Your task to perform on an android device: open sync settings in chrome Image 0: 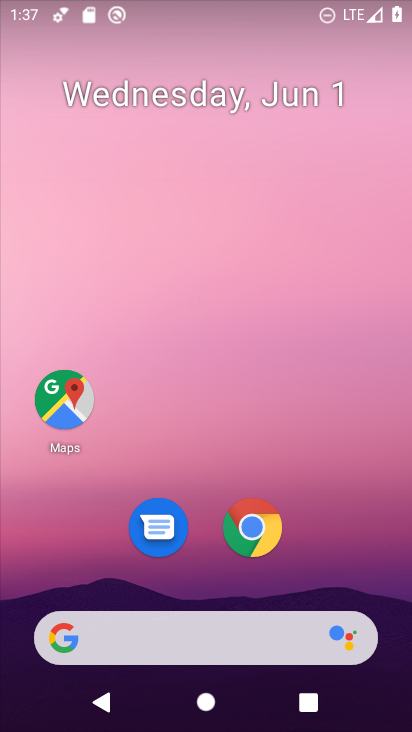
Step 0: drag from (159, 578) to (163, 11)
Your task to perform on an android device: open sync settings in chrome Image 1: 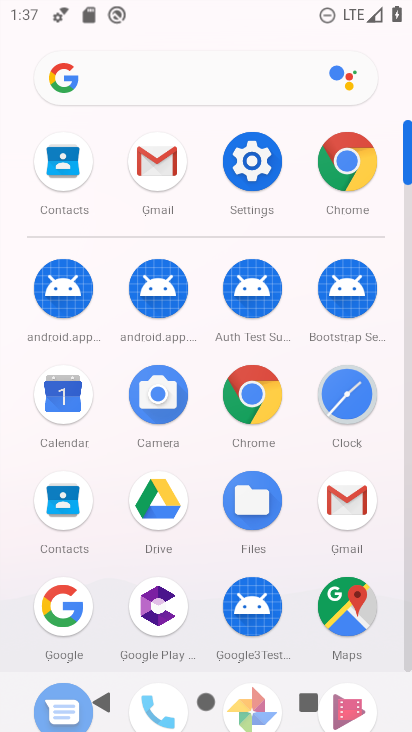
Step 1: click (358, 146)
Your task to perform on an android device: open sync settings in chrome Image 2: 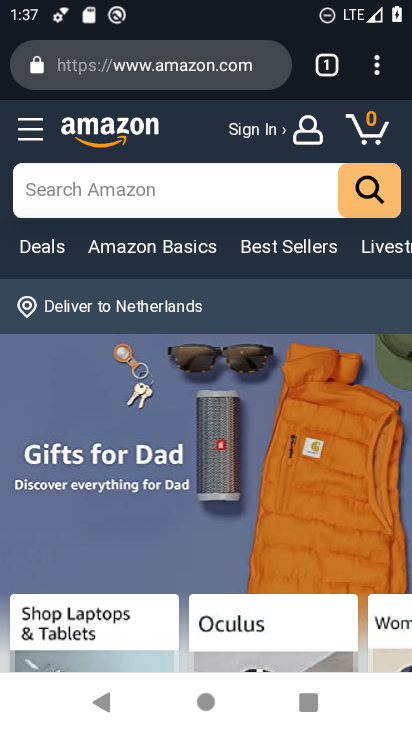
Step 2: click (383, 62)
Your task to perform on an android device: open sync settings in chrome Image 3: 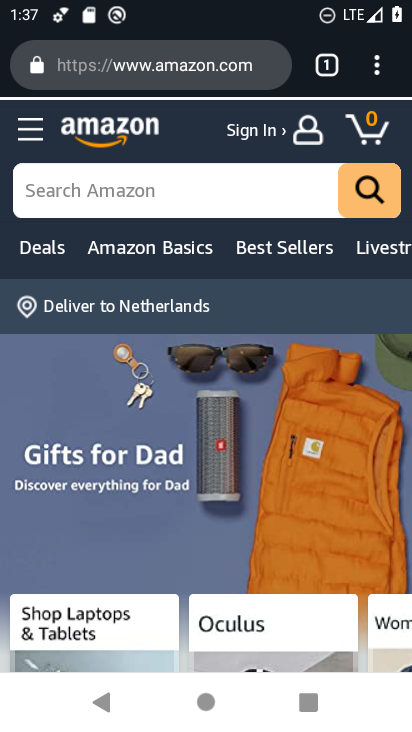
Step 3: click (383, 62)
Your task to perform on an android device: open sync settings in chrome Image 4: 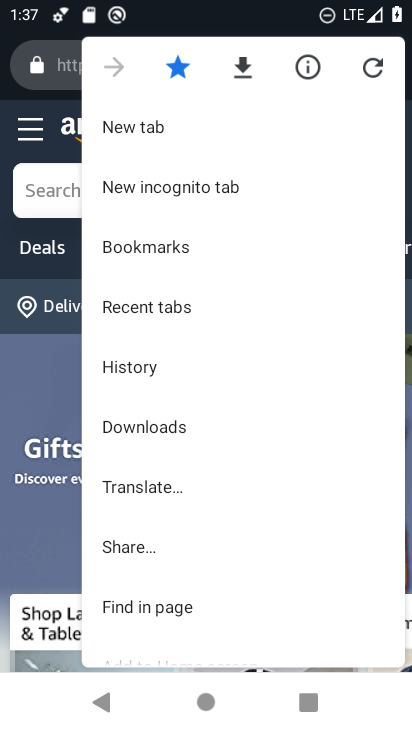
Step 4: drag from (262, 633) to (216, 242)
Your task to perform on an android device: open sync settings in chrome Image 5: 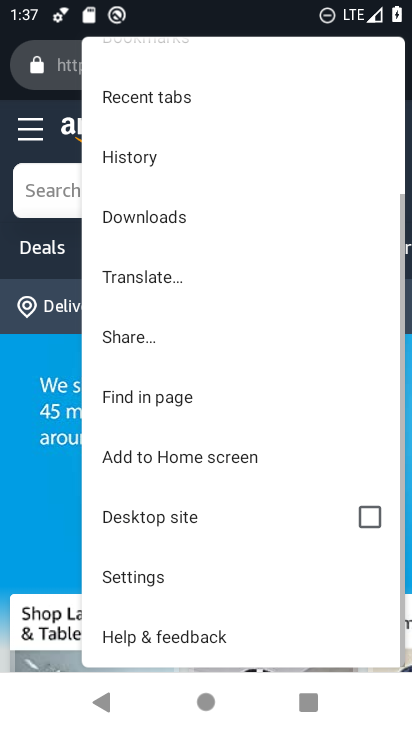
Step 5: click (135, 573)
Your task to perform on an android device: open sync settings in chrome Image 6: 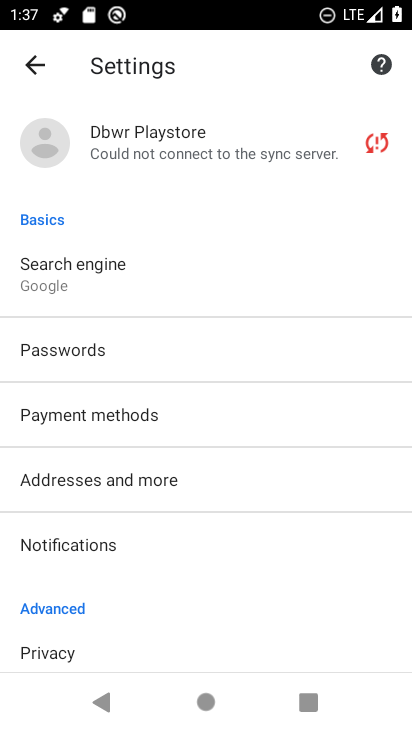
Step 6: drag from (263, 549) to (239, 103)
Your task to perform on an android device: open sync settings in chrome Image 7: 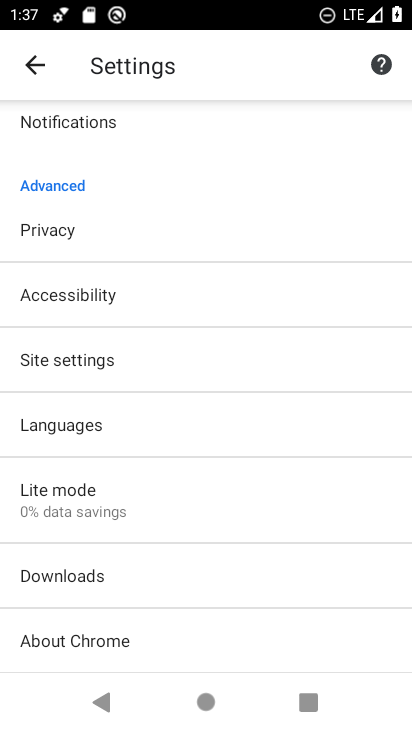
Step 7: drag from (247, 202) to (196, 559)
Your task to perform on an android device: open sync settings in chrome Image 8: 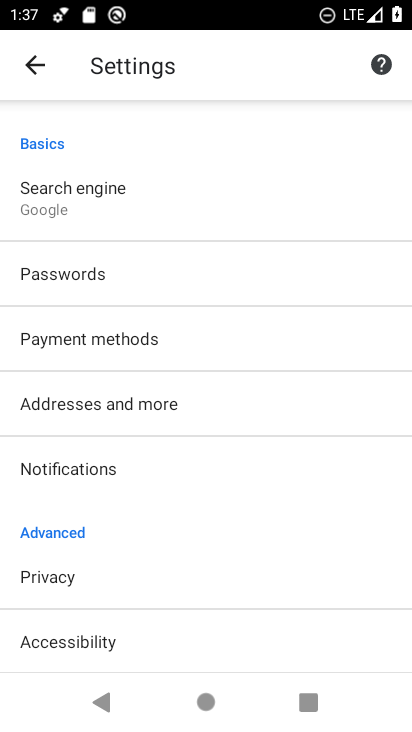
Step 8: drag from (173, 567) to (148, 9)
Your task to perform on an android device: open sync settings in chrome Image 9: 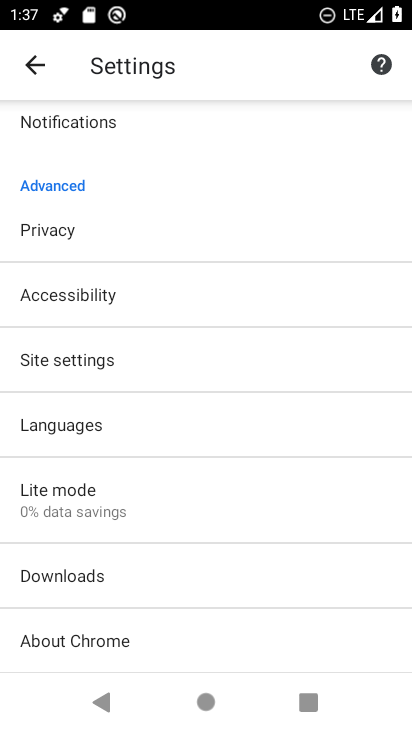
Step 9: click (29, 69)
Your task to perform on an android device: open sync settings in chrome Image 10: 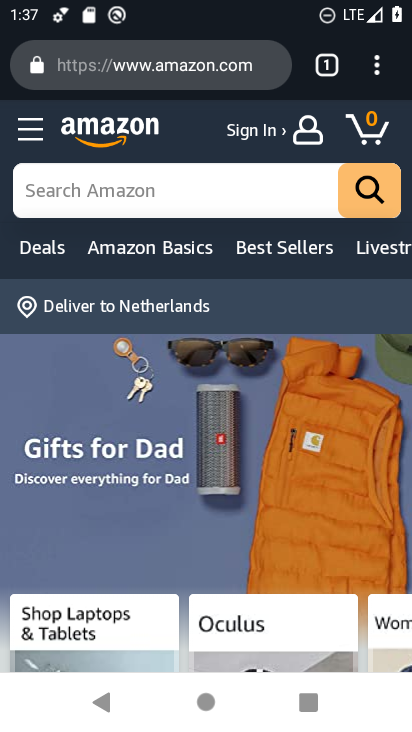
Step 10: click (380, 61)
Your task to perform on an android device: open sync settings in chrome Image 11: 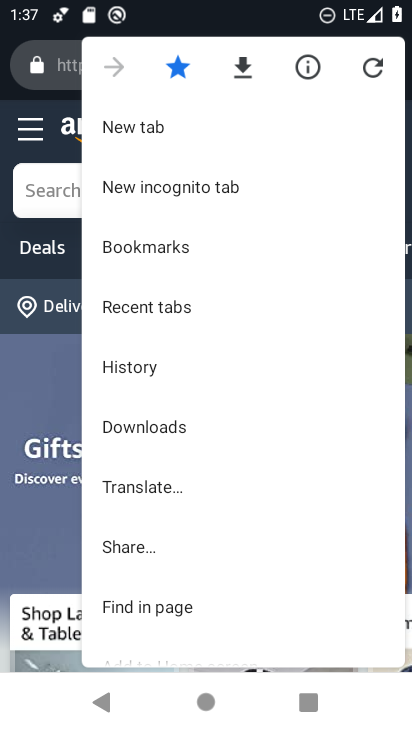
Step 11: drag from (180, 570) to (171, 129)
Your task to perform on an android device: open sync settings in chrome Image 12: 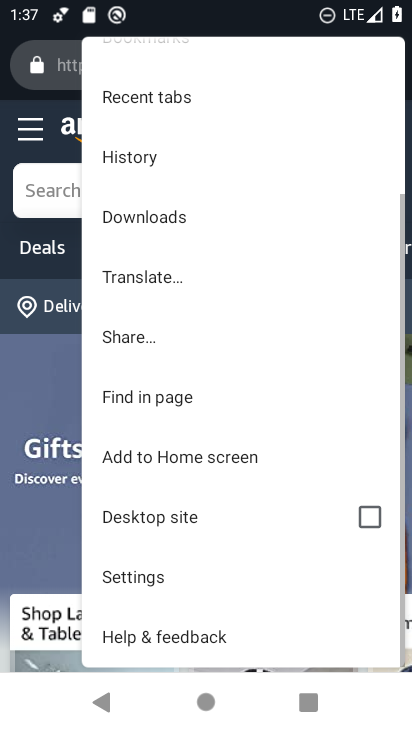
Step 12: click (157, 579)
Your task to perform on an android device: open sync settings in chrome Image 13: 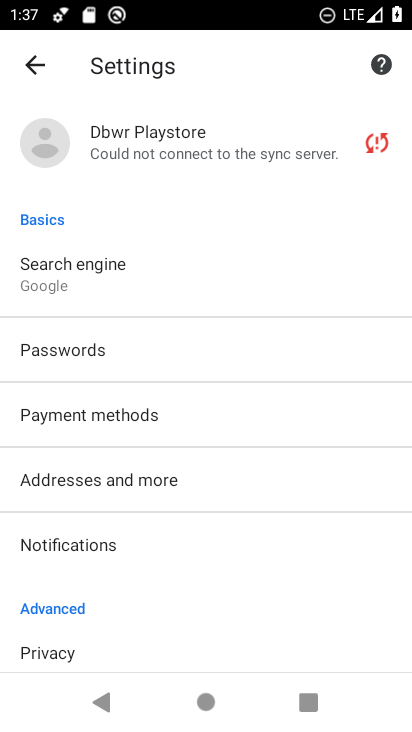
Step 13: click (221, 150)
Your task to perform on an android device: open sync settings in chrome Image 14: 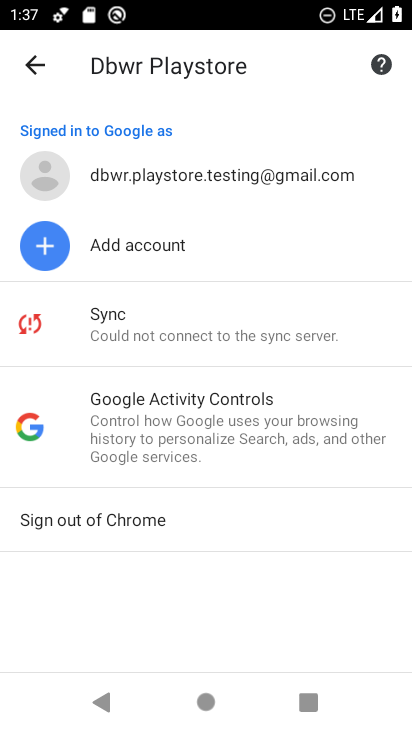
Step 14: click (179, 330)
Your task to perform on an android device: open sync settings in chrome Image 15: 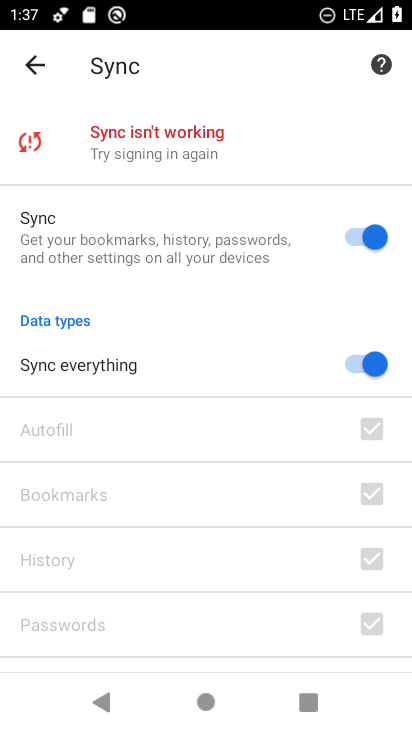
Step 15: task complete